Your task to perform on an android device: Open Yahoo.com Image 0: 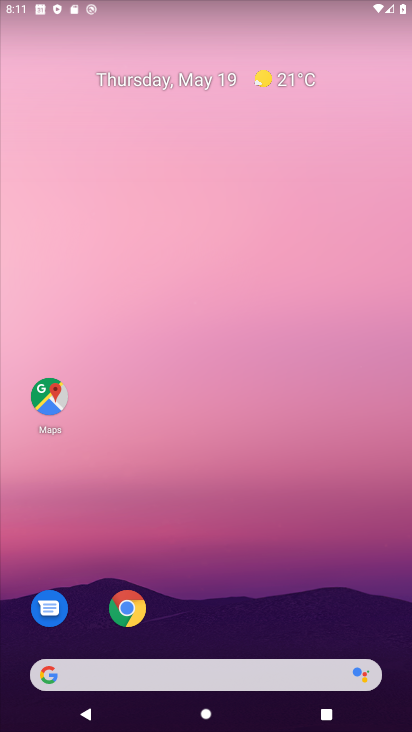
Step 0: click (127, 608)
Your task to perform on an android device: Open Yahoo.com Image 1: 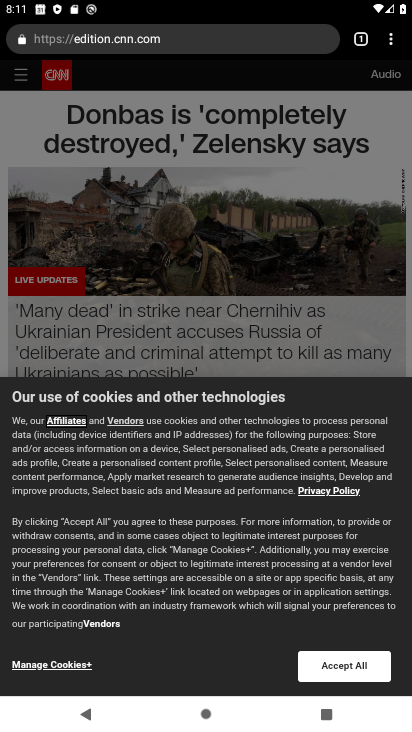
Step 1: click (396, 37)
Your task to perform on an android device: Open Yahoo.com Image 2: 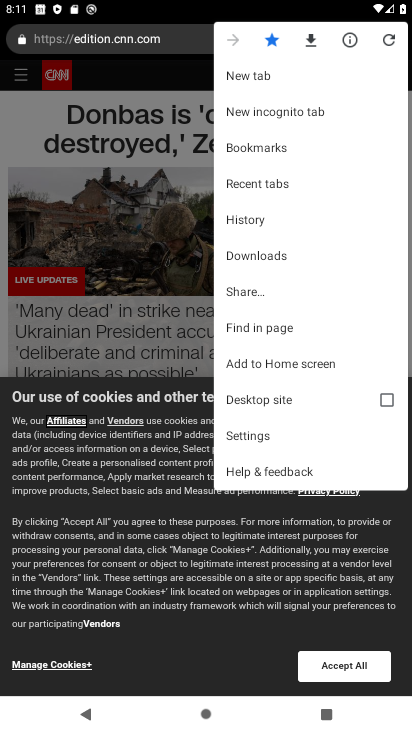
Step 2: click (250, 76)
Your task to perform on an android device: Open Yahoo.com Image 3: 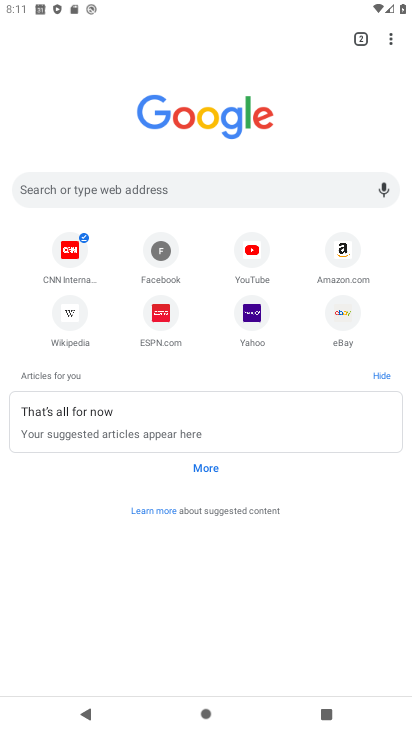
Step 3: click (256, 315)
Your task to perform on an android device: Open Yahoo.com Image 4: 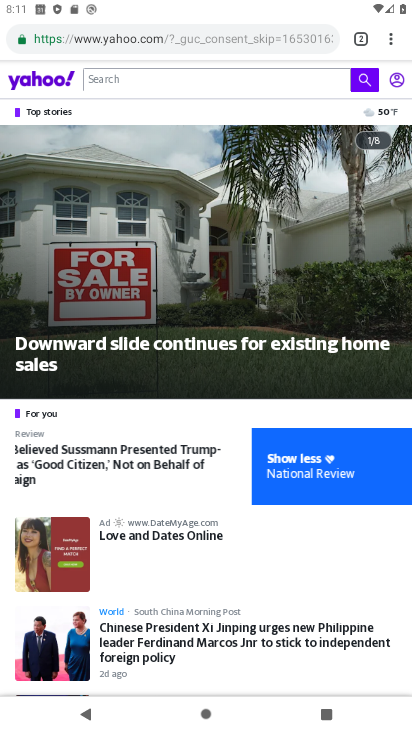
Step 4: task complete